Your task to perform on an android device: change notification settings in the gmail app Image 0: 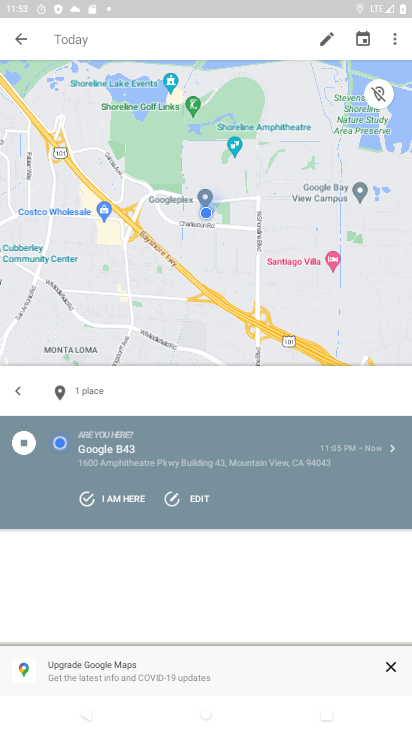
Step 0: press home button
Your task to perform on an android device: change notification settings in the gmail app Image 1: 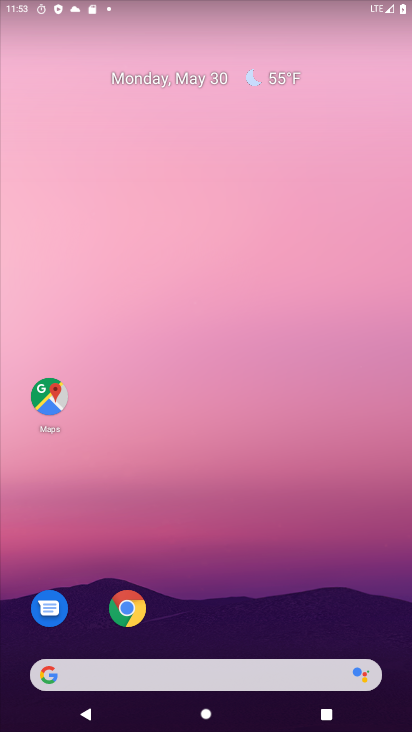
Step 1: drag from (272, 628) to (224, 2)
Your task to perform on an android device: change notification settings in the gmail app Image 2: 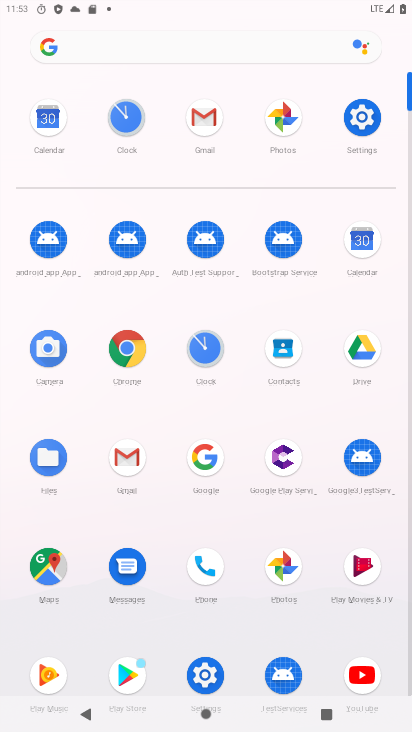
Step 2: click (209, 122)
Your task to perform on an android device: change notification settings in the gmail app Image 3: 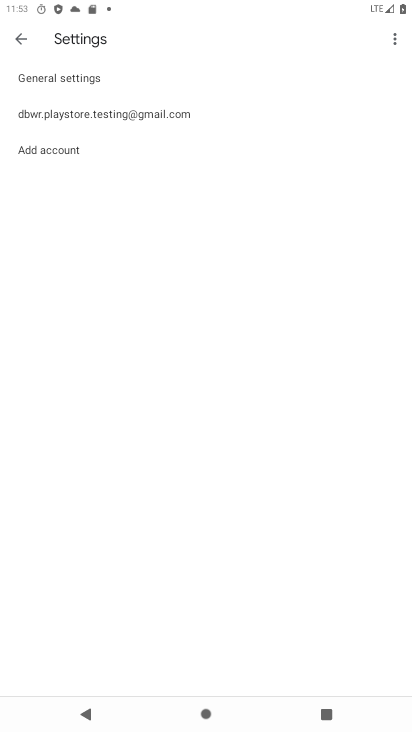
Step 3: click (36, 82)
Your task to perform on an android device: change notification settings in the gmail app Image 4: 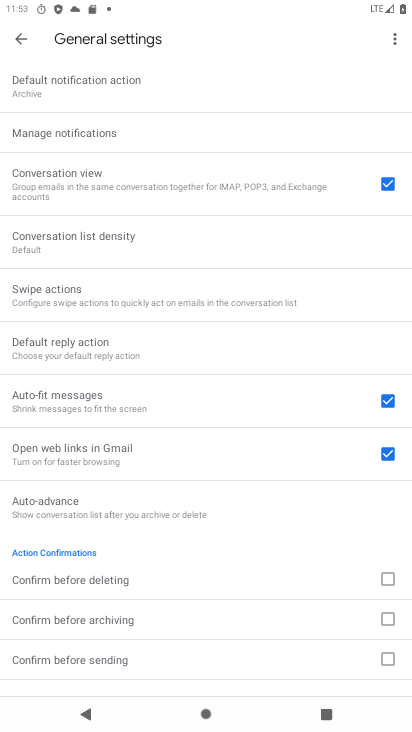
Step 4: click (51, 134)
Your task to perform on an android device: change notification settings in the gmail app Image 5: 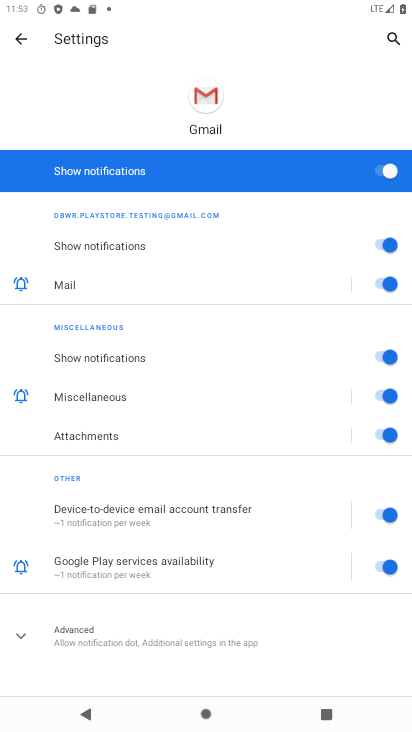
Step 5: click (388, 170)
Your task to perform on an android device: change notification settings in the gmail app Image 6: 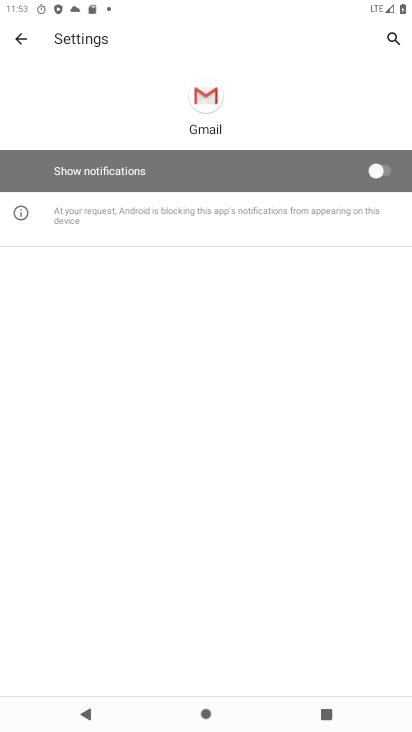
Step 6: task complete